Your task to perform on an android device: visit the assistant section in the google photos Image 0: 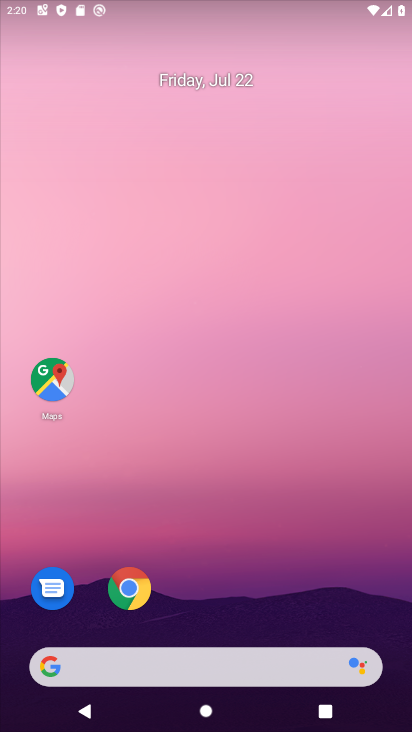
Step 0: click (218, 624)
Your task to perform on an android device: visit the assistant section in the google photos Image 1: 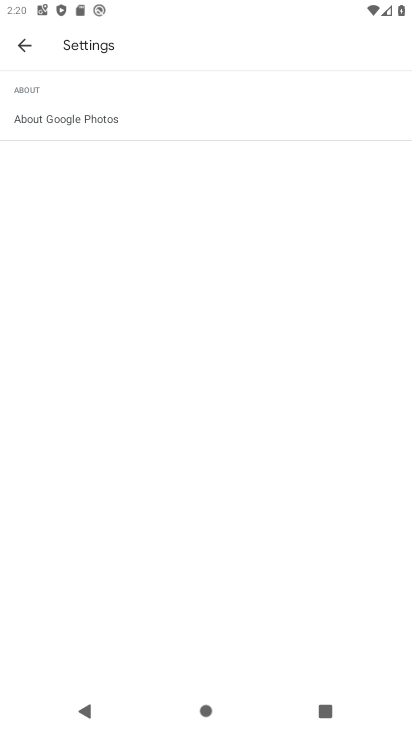
Step 1: press home button
Your task to perform on an android device: visit the assistant section in the google photos Image 2: 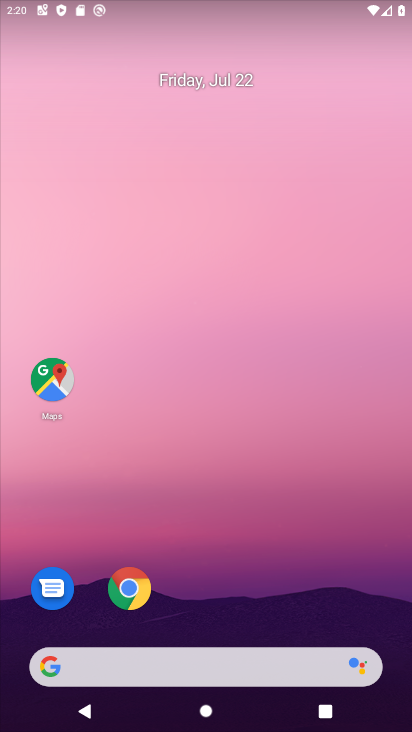
Step 2: drag from (218, 626) to (253, 7)
Your task to perform on an android device: visit the assistant section in the google photos Image 3: 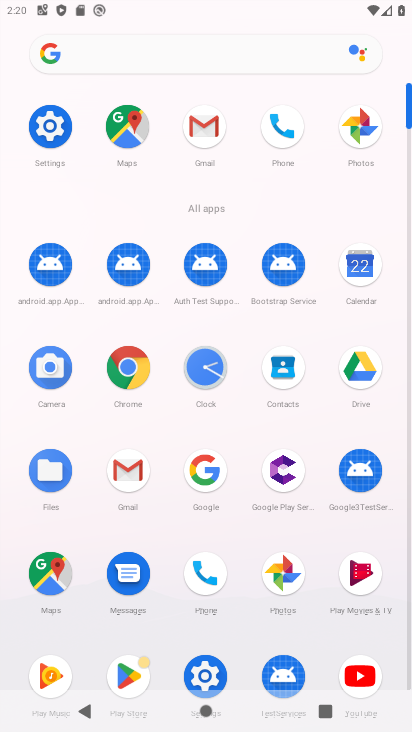
Step 3: click (281, 565)
Your task to perform on an android device: visit the assistant section in the google photos Image 4: 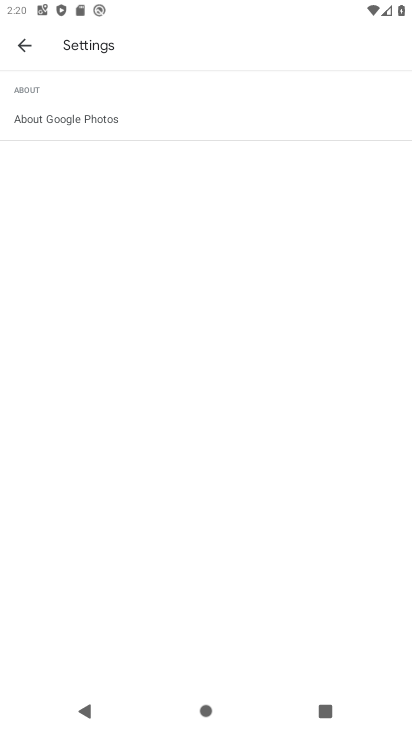
Step 4: click (18, 43)
Your task to perform on an android device: visit the assistant section in the google photos Image 5: 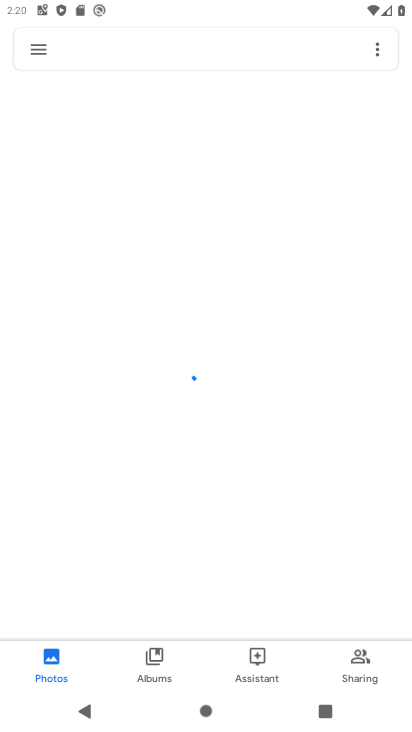
Step 5: click (252, 657)
Your task to perform on an android device: visit the assistant section in the google photos Image 6: 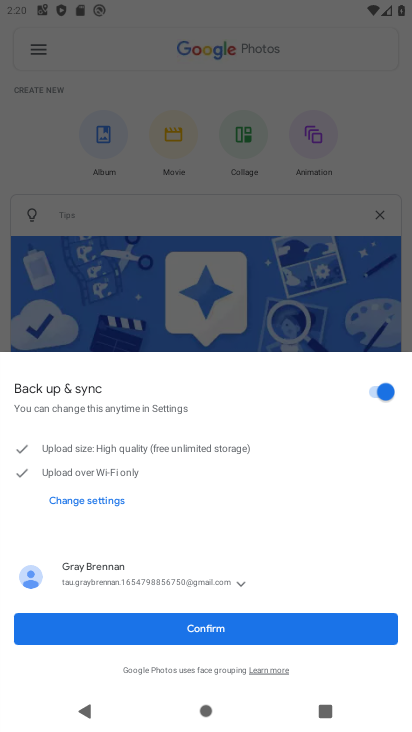
Step 6: click (209, 630)
Your task to perform on an android device: visit the assistant section in the google photos Image 7: 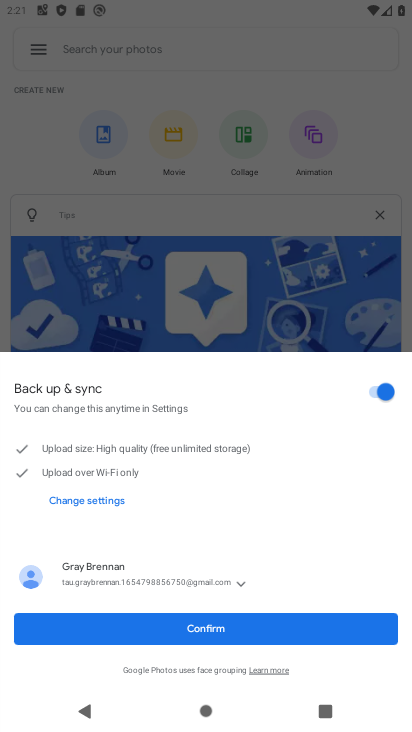
Step 7: click (209, 630)
Your task to perform on an android device: visit the assistant section in the google photos Image 8: 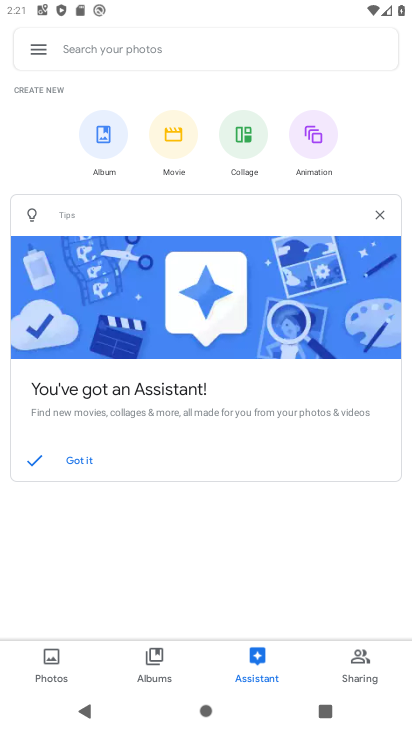
Step 8: task complete